Your task to perform on an android device: Open Google Maps and go to "Timeline" Image 0: 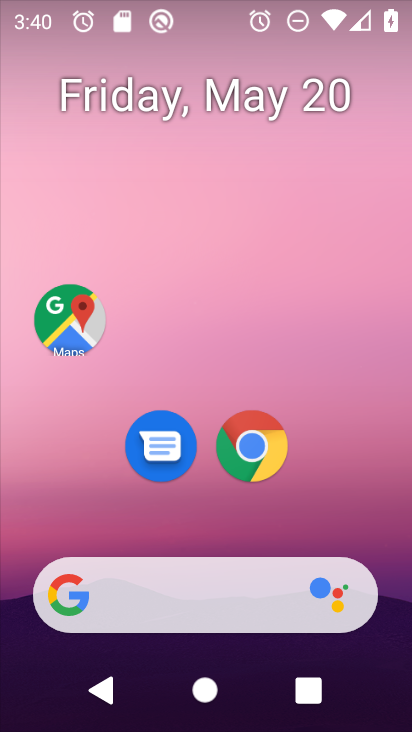
Step 0: click (68, 322)
Your task to perform on an android device: Open Google Maps and go to "Timeline" Image 1: 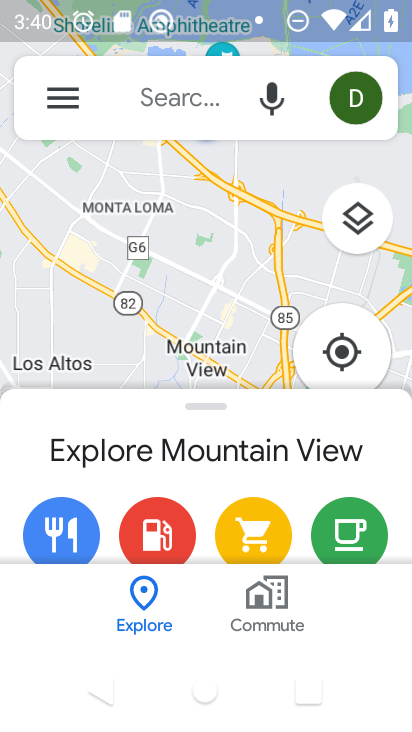
Step 1: click (62, 105)
Your task to perform on an android device: Open Google Maps and go to "Timeline" Image 2: 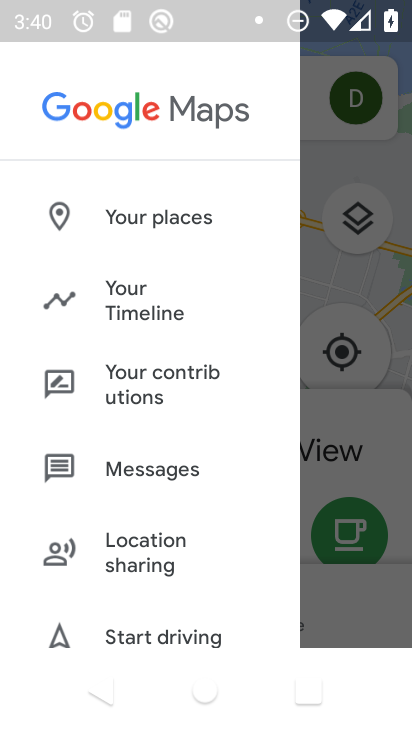
Step 2: click (117, 308)
Your task to perform on an android device: Open Google Maps and go to "Timeline" Image 3: 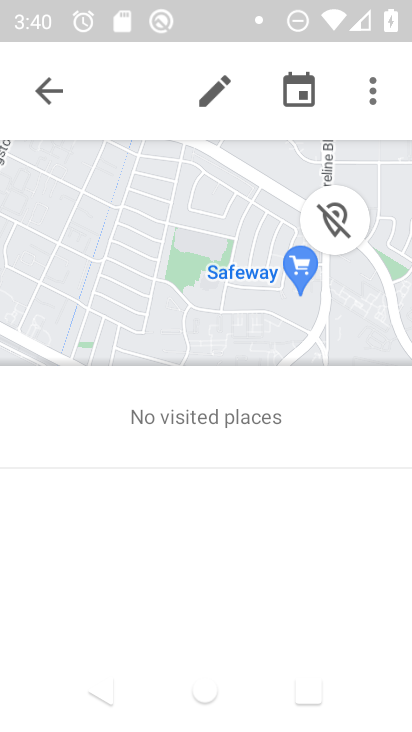
Step 3: task complete